Your task to perform on an android device: see sites visited before in the chrome app Image 0: 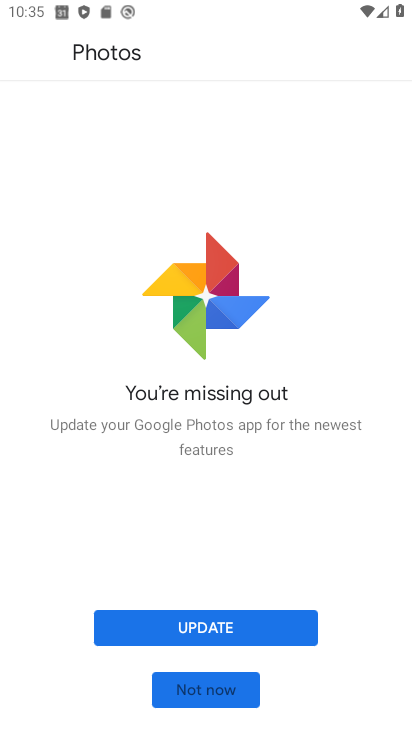
Step 0: click (151, 628)
Your task to perform on an android device: see sites visited before in the chrome app Image 1: 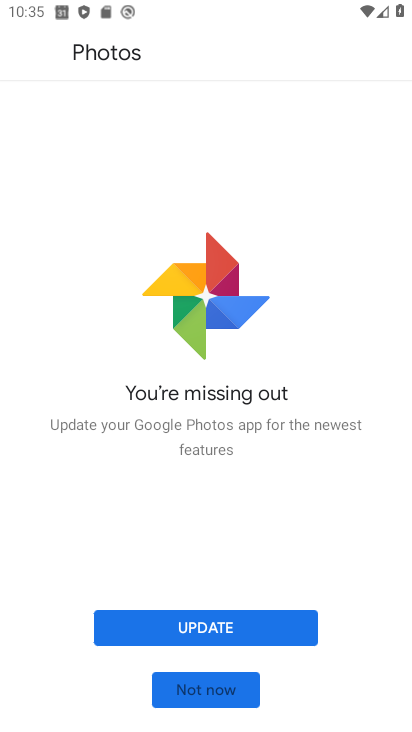
Step 1: click (151, 628)
Your task to perform on an android device: see sites visited before in the chrome app Image 2: 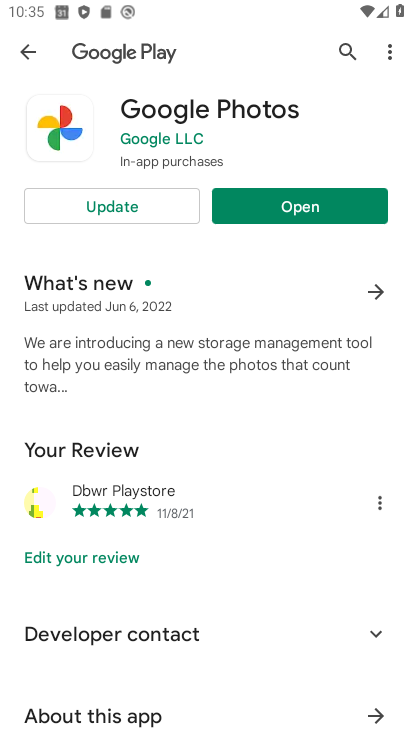
Step 2: click (83, 201)
Your task to perform on an android device: see sites visited before in the chrome app Image 3: 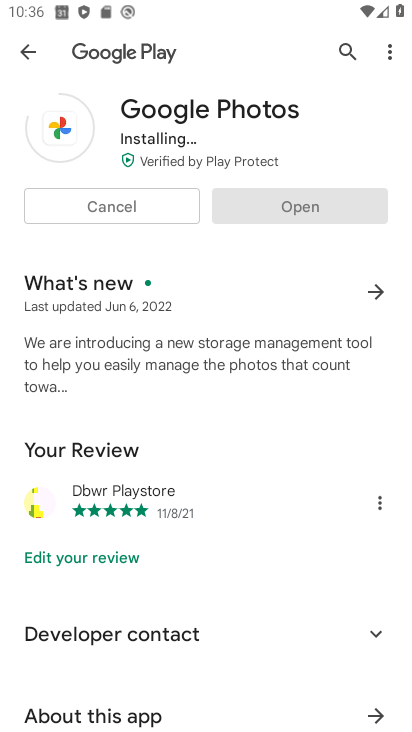
Step 3: task complete